Your task to perform on an android device: turn on bluetooth scan Image 0: 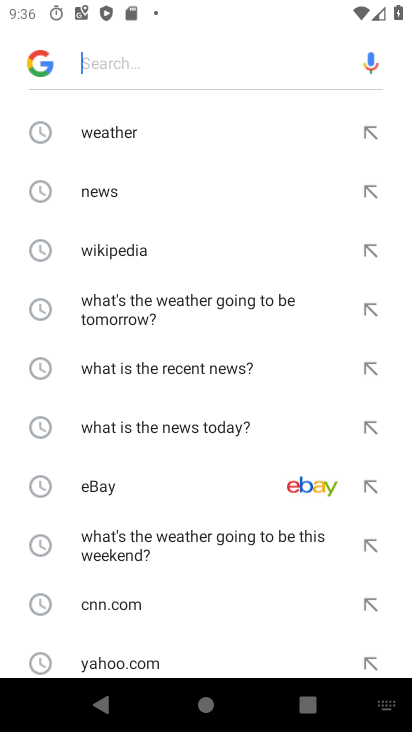
Step 0: press home button
Your task to perform on an android device: turn on bluetooth scan Image 1: 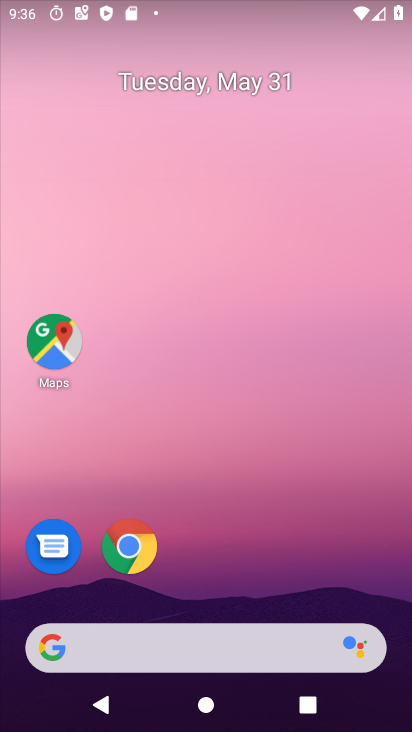
Step 1: drag from (261, 557) to (275, 133)
Your task to perform on an android device: turn on bluetooth scan Image 2: 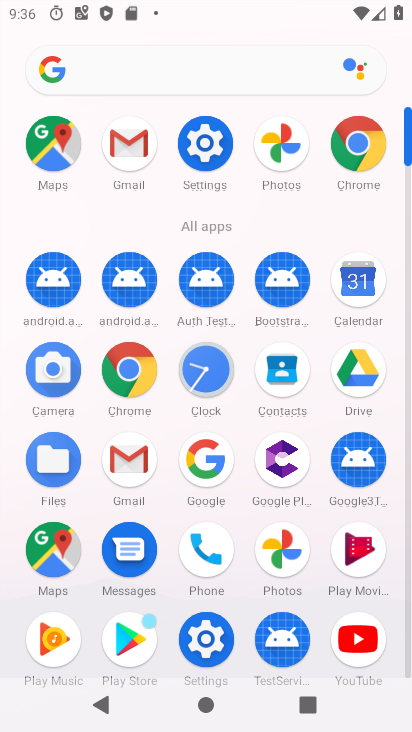
Step 2: click (214, 148)
Your task to perform on an android device: turn on bluetooth scan Image 3: 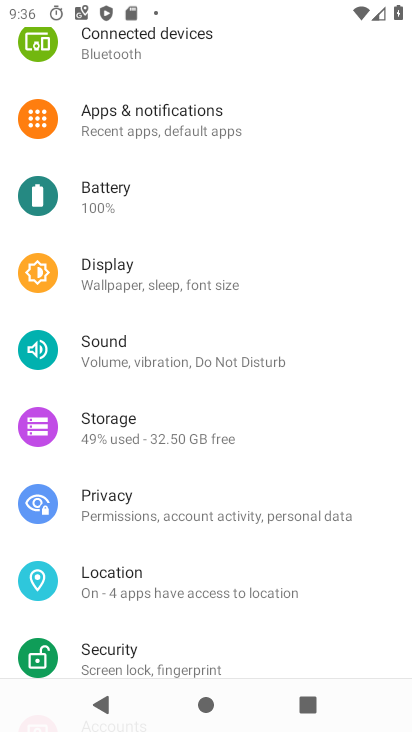
Step 3: click (162, 578)
Your task to perform on an android device: turn on bluetooth scan Image 4: 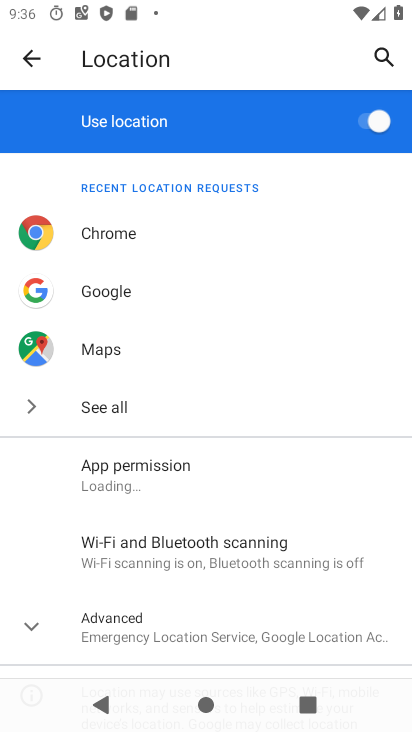
Step 4: click (183, 543)
Your task to perform on an android device: turn on bluetooth scan Image 5: 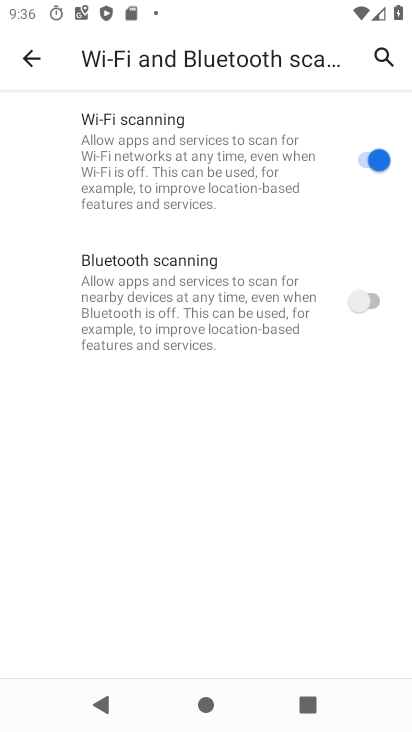
Step 5: click (376, 296)
Your task to perform on an android device: turn on bluetooth scan Image 6: 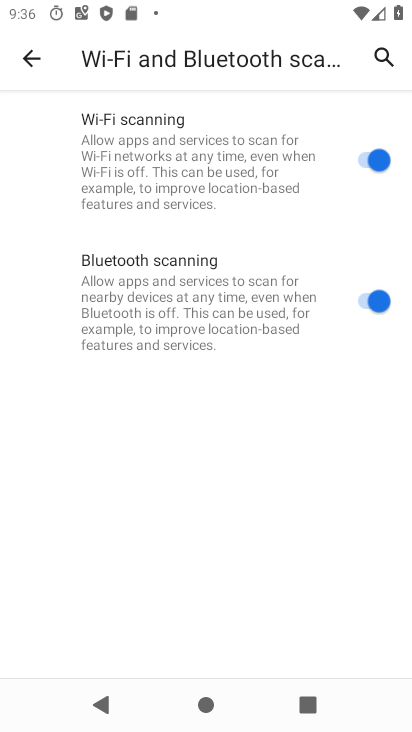
Step 6: task complete